Your task to perform on an android device: read, delete, or share a saved page in the chrome app Image 0: 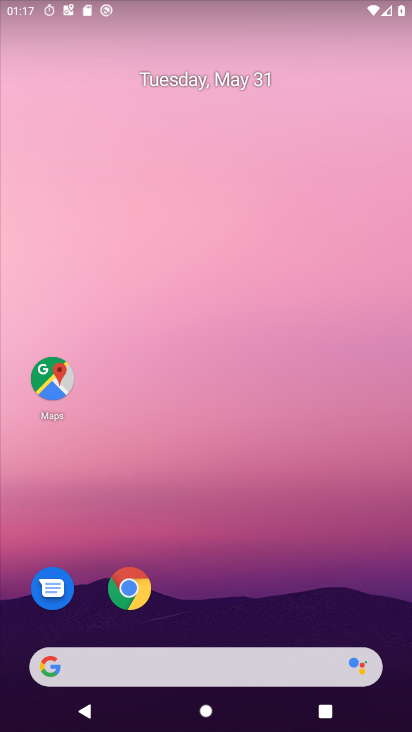
Step 0: drag from (200, 679) to (147, 121)
Your task to perform on an android device: read, delete, or share a saved page in the chrome app Image 1: 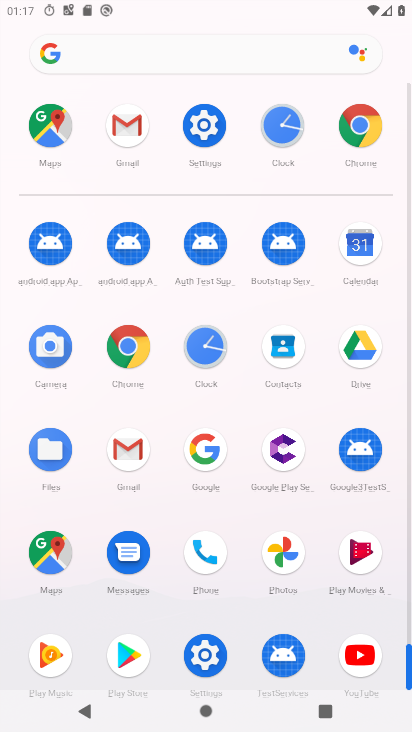
Step 1: click (137, 354)
Your task to perform on an android device: read, delete, or share a saved page in the chrome app Image 2: 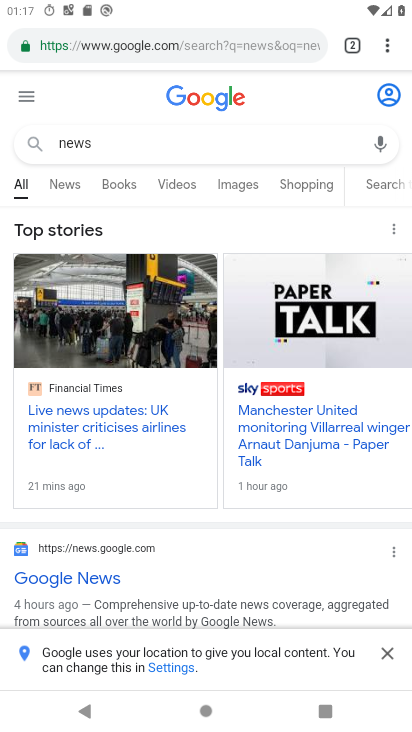
Step 2: task complete